Your task to perform on an android device: check the backup settings in the google photos Image 0: 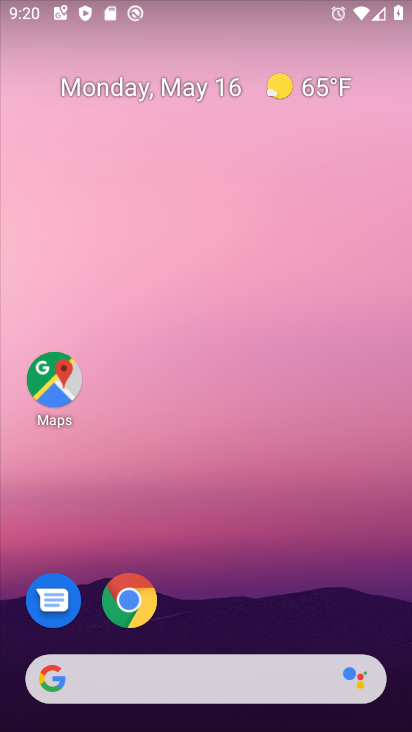
Step 0: drag from (203, 632) to (289, 120)
Your task to perform on an android device: check the backup settings in the google photos Image 1: 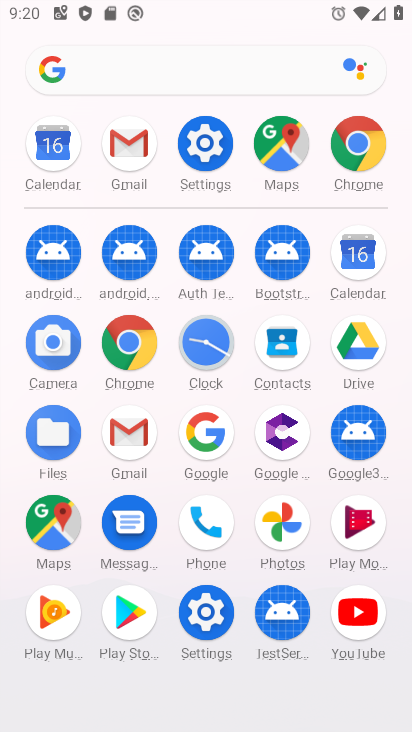
Step 1: click (293, 517)
Your task to perform on an android device: check the backup settings in the google photos Image 2: 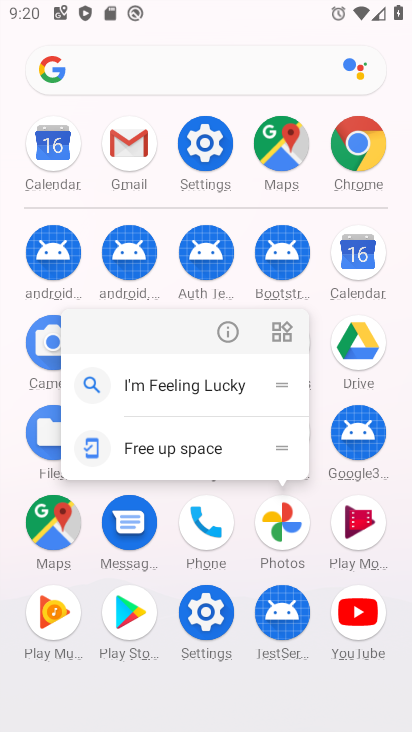
Step 2: click (230, 348)
Your task to perform on an android device: check the backup settings in the google photos Image 3: 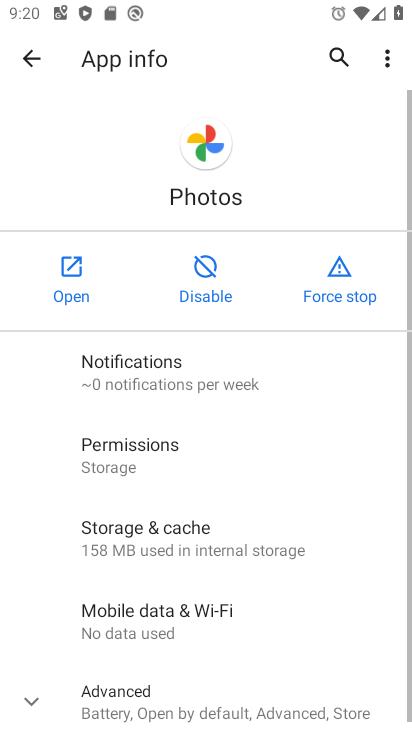
Step 3: click (52, 257)
Your task to perform on an android device: check the backup settings in the google photos Image 4: 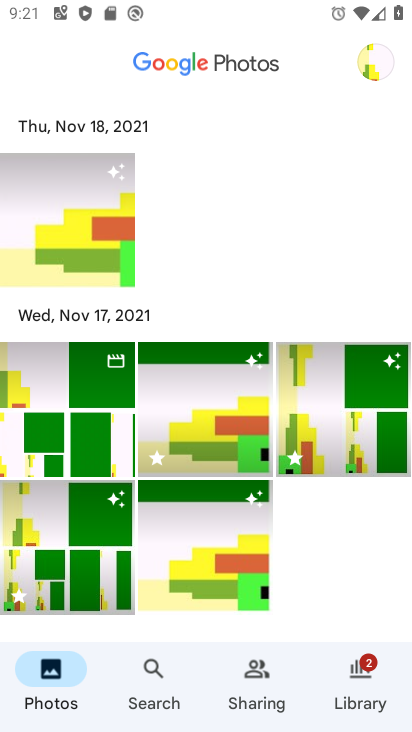
Step 4: click (371, 75)
Your task to perform on an android device: check the backup settings in the google photos Image 5: 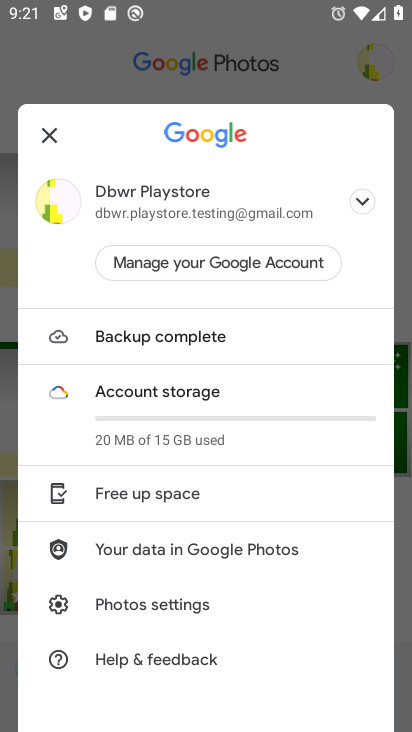
Step 5: click (99, 607)
Your task to perform on an android device: check the backup settings in the google photos Image 6: 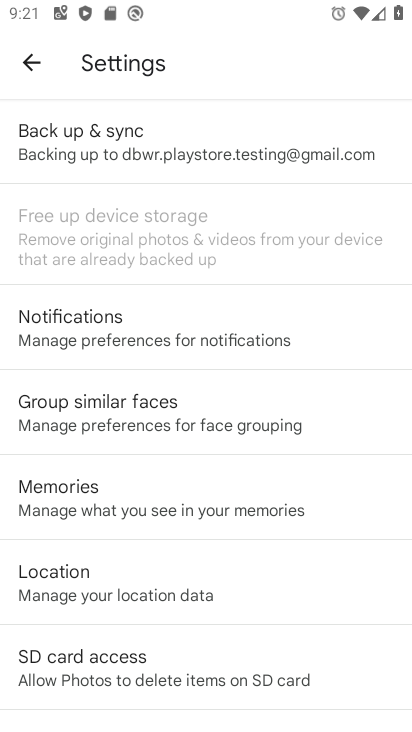
Step 6: click (126, 162)
Your task to perform on an android device: check the backup settings in the google photos Image 7: 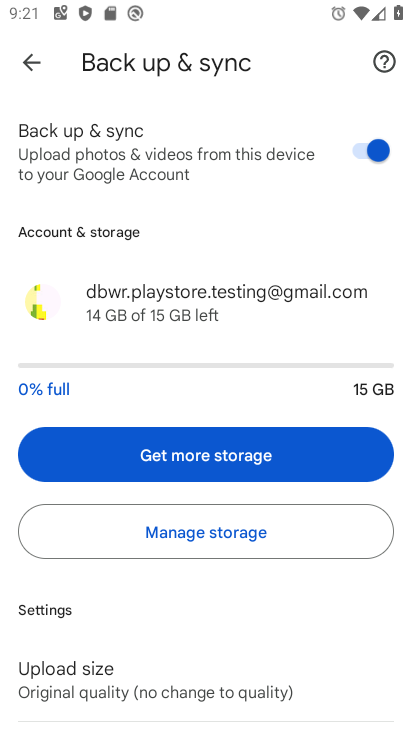
Step 7: task complete